Your task to perform on an android device: Go to CNN.com Image 0: 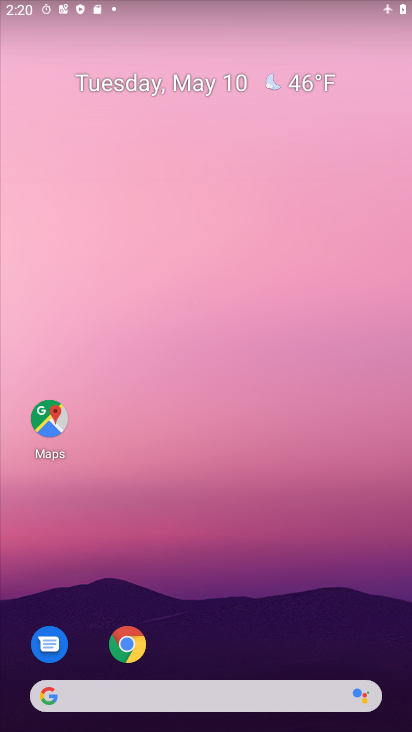
Step 0: drag from (292, 622) to (230, 169)
Your task to perform on an android device: Go to CNN.com Image 1: 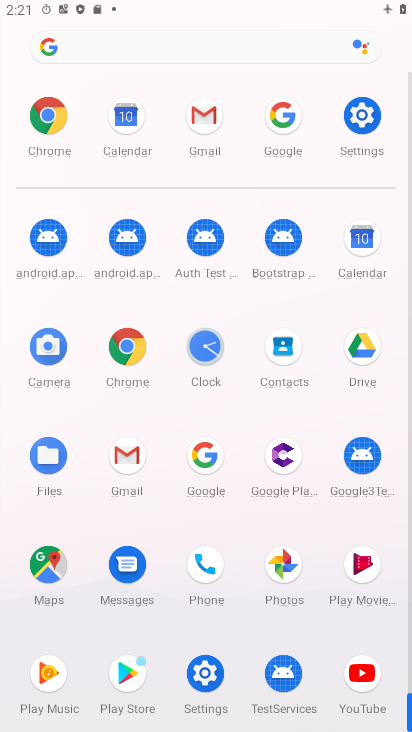
Step 1: click (125, 364)
Your task to perform on an android device: Go to CNN.com Image 2: 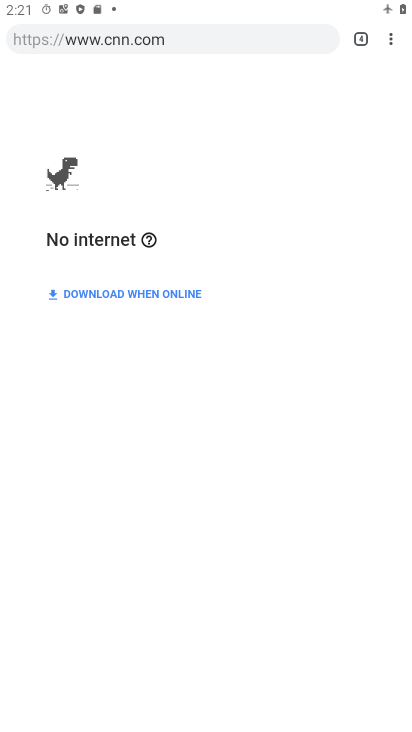
Step 2: task complete